Your task to perform on an android device: Open Maps and search for coffee Image 0: 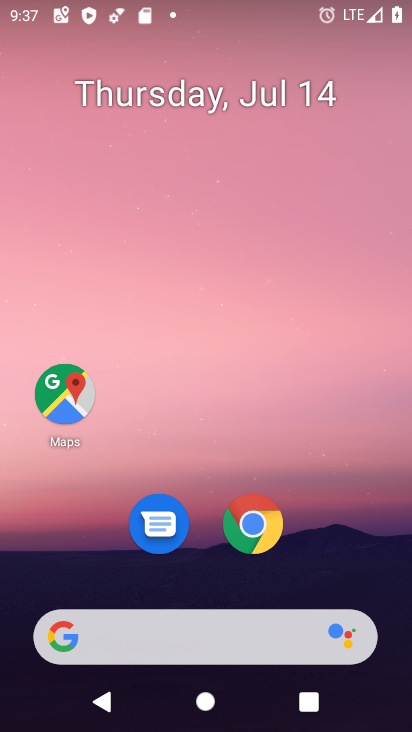
Step 0: click (57, 384)
Your task to perform on an android device: Open Maps and search for coffee Image 1: 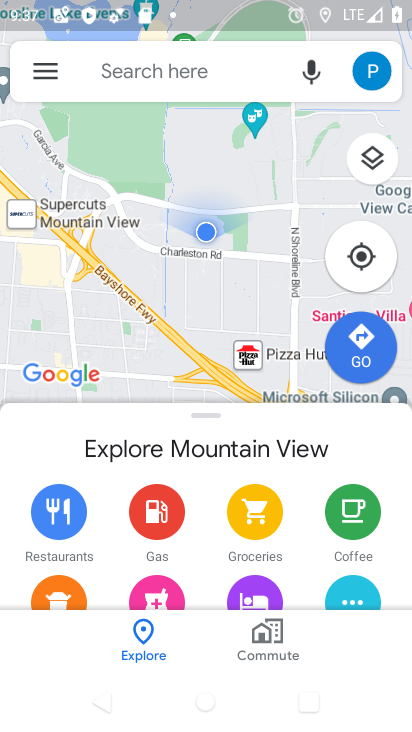
Step 1: click (141, 75)
Your task to perform on an android device: Open Maps and search for coffee Image 2: 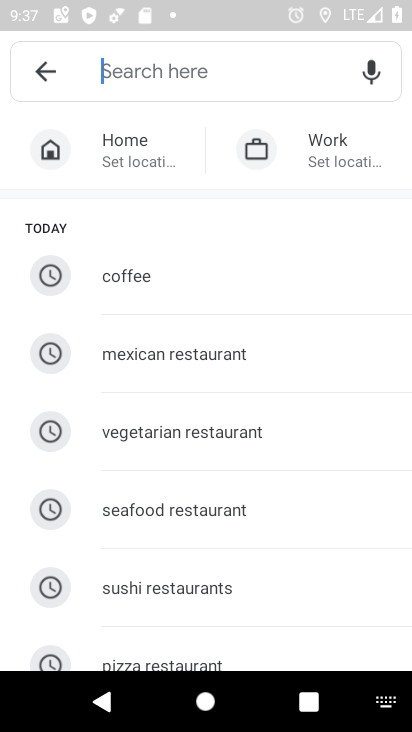
Step 2: click (136, 270)
Your task to perform on an android device: Open Maps and search for coffee Image 3: 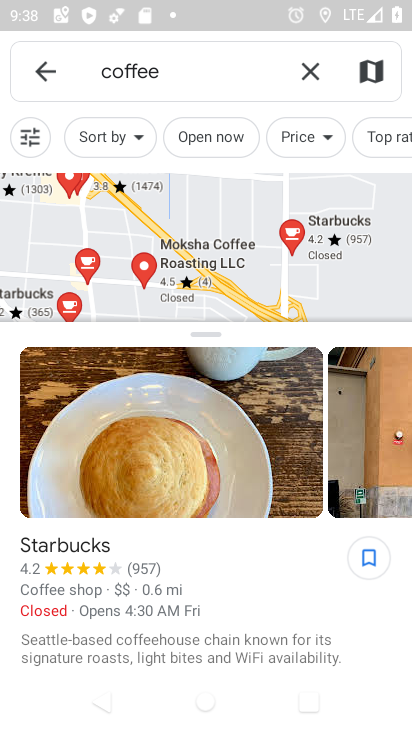
Step 3: task complete